Your task to perform on an android device: Search for apple airpods on amazon.com, select the first entry, add it to the cart, then select checkout. Image 0: 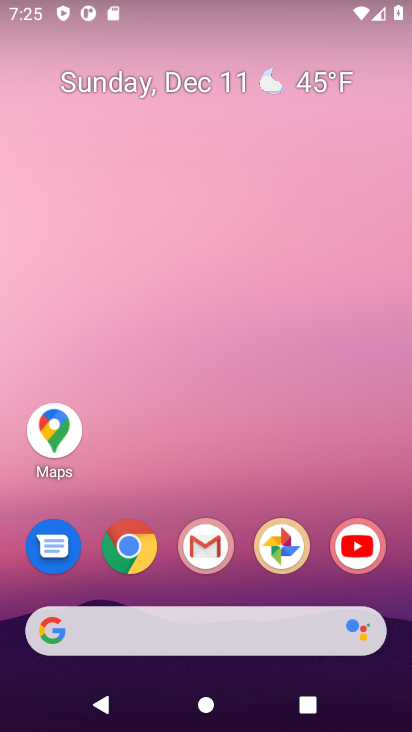
Step 0: click (131, 555)
Your task to perform on an android device: Search for apple airpods on amazon.com, select the first entry, add it to the cart, then select checkout. Image 1: 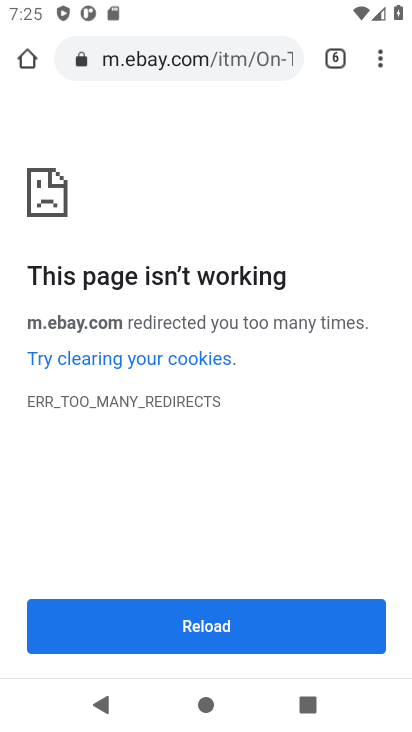
Step 1: click (167, 66)
Your task to perform on an android device: Search for apple airpods on amazon.com, select the first entry, add it to the cart, then select checkout. Image 2: 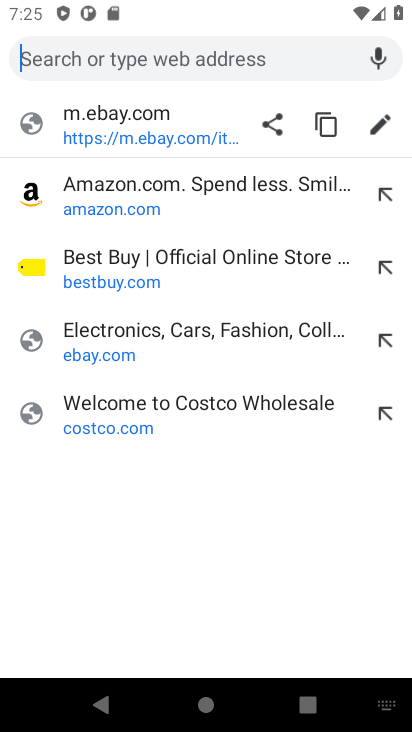
Step 2: click (104, 200)
Your task to perform on an android device: Search for apple airpods on amazon.com, select the first entry, add it to the cart, then select checkout. Image 3: 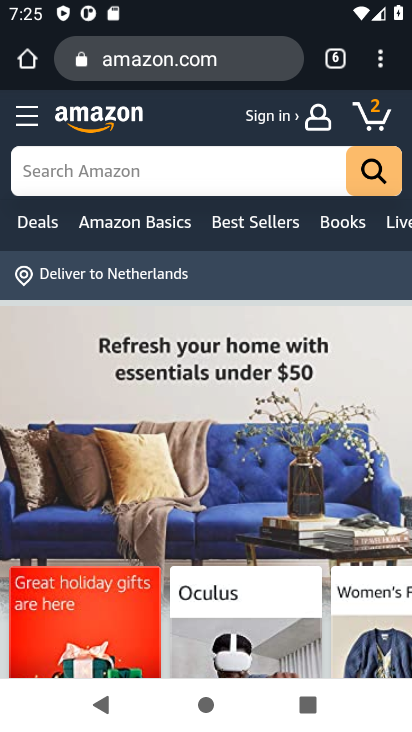
Step 3: click (114, 172)
Your task to perform on an android device: Search for apple airpods on amazon.com, select the first entry, add it to the cart, then select checkout. Image 4: 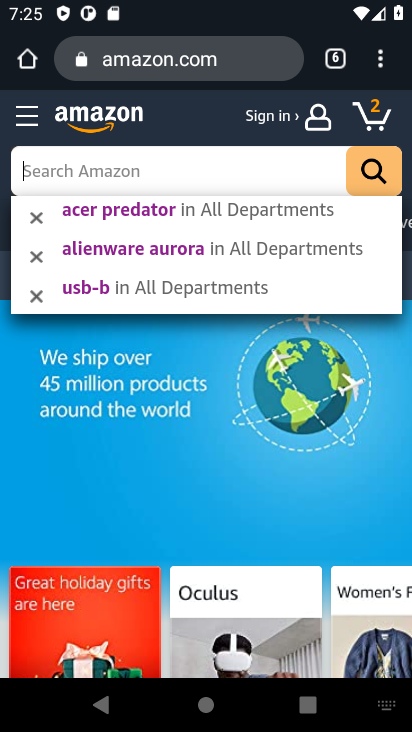
Step 4: type "apple airpods "
Your task to perform on an android device: Search for apple airpods on amazon.com, select the first entry, add it to the cart, then select checkout. Image 5: 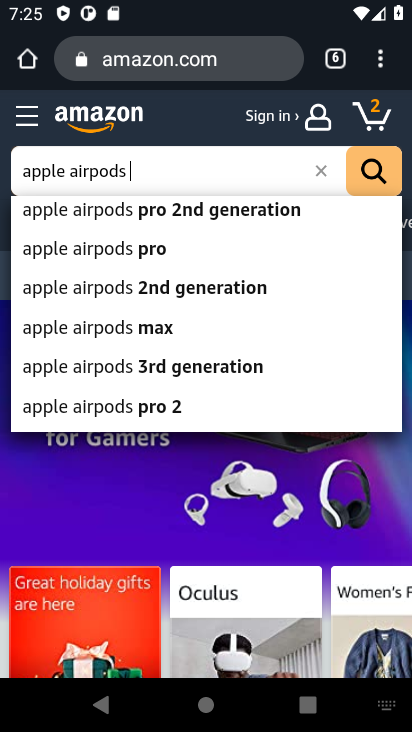
Step 5: click (371, 171)
Your task to perform on an android device: Search for apple airpods on amazon.com, select the first entry, add it to the cart, then select checkout. Image 6: 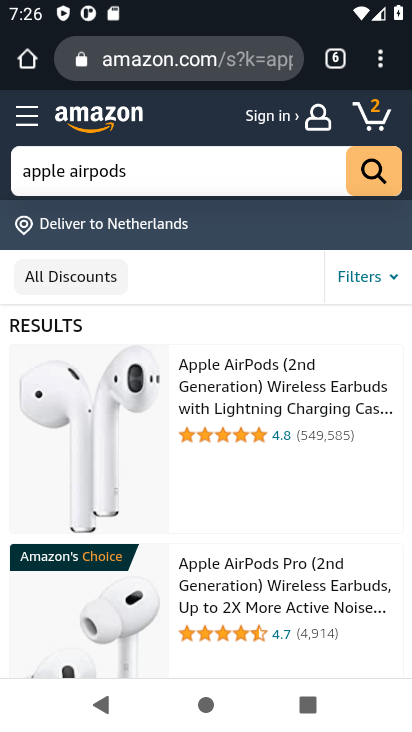
Step 6: click (210, 390)
Your task to perform on an android device: Search for apple airpods on amazon.com, select the first entry, add it to the cart, then select checkout. Image 7: 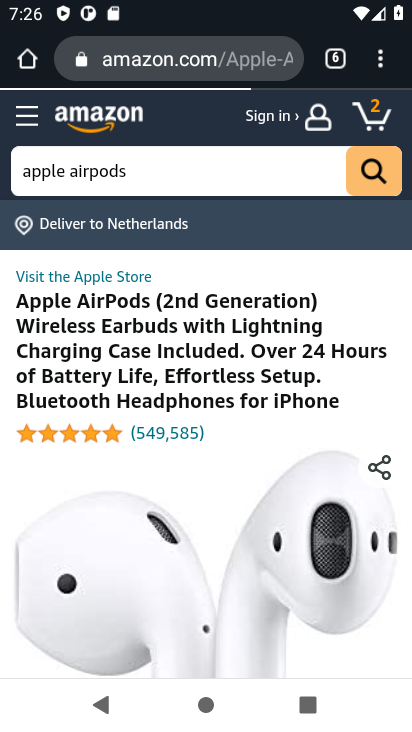
Step 7: task complete